Your task to perform on an android device: visit the assistant section in the google photos Image 0: 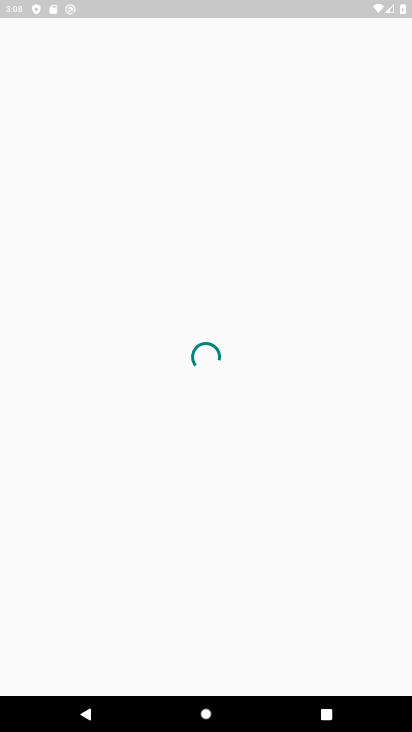
Step 0: press home button
Your task to perform on an android device: visit the assistant section in the google photos Image 1: 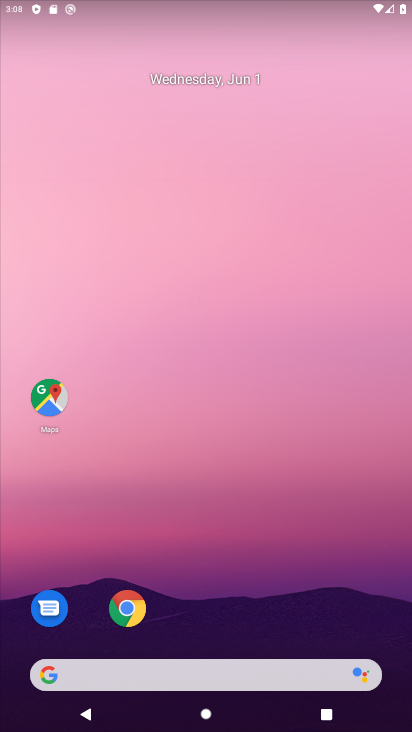
Step 1: drag from (206, 669) to (189, 158)
Your task to perform on an android device: visit the assistant section in the google photos Image 2: 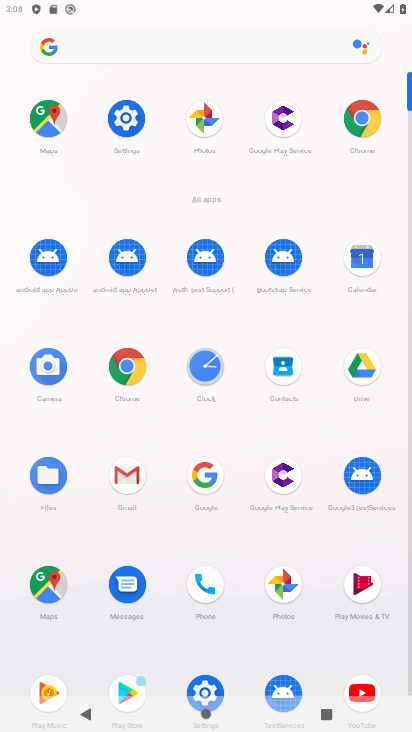
Step 2: click (274, 581)
Your task to perform on an android device: visit the assistant section in the google photos Image 3: 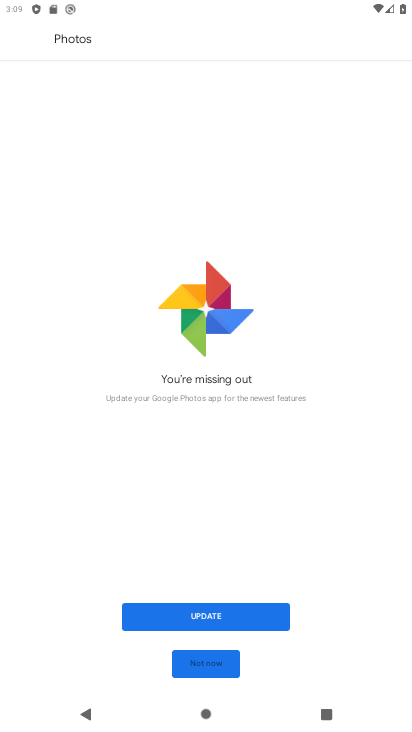
Step 3: click (189, 676)
Your task to perform on an android device: visit the assistant section in the google photos Image 4: 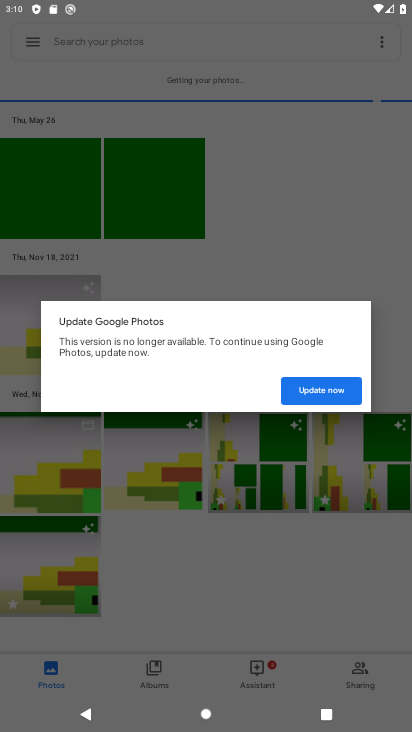
Step 4: click (334, 398)
Your task to perform on an android device: visit the assistant section in the google photos Image 5: 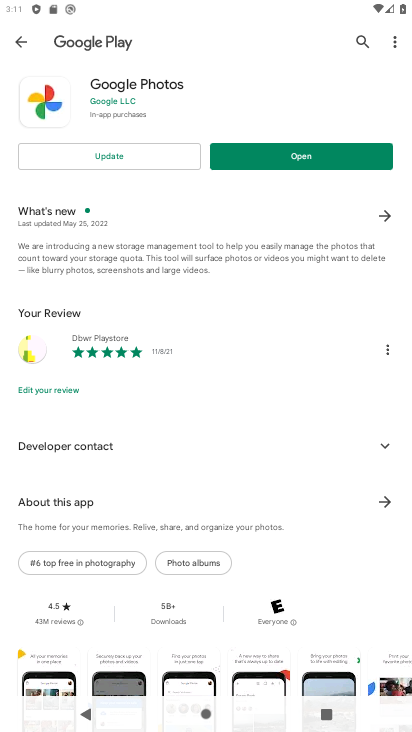
Step 5: click (139, 148)
Your task to perform on an android device: visit the assistant section in the google photos Image 6: 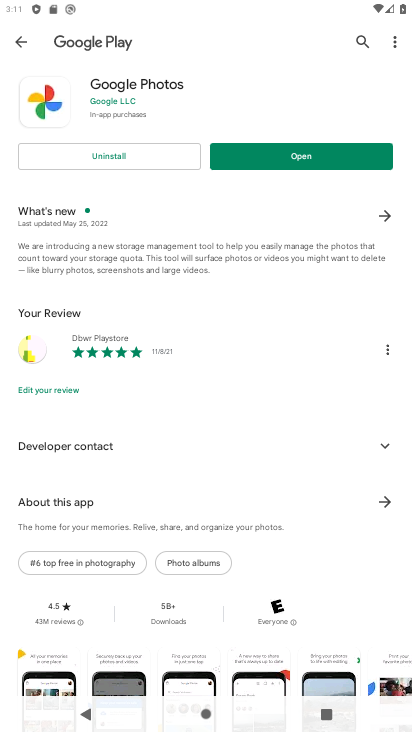
Step 6: click (289, 164)
Your task to perform on an android device: visit the assistant section in the google photos Image 7: 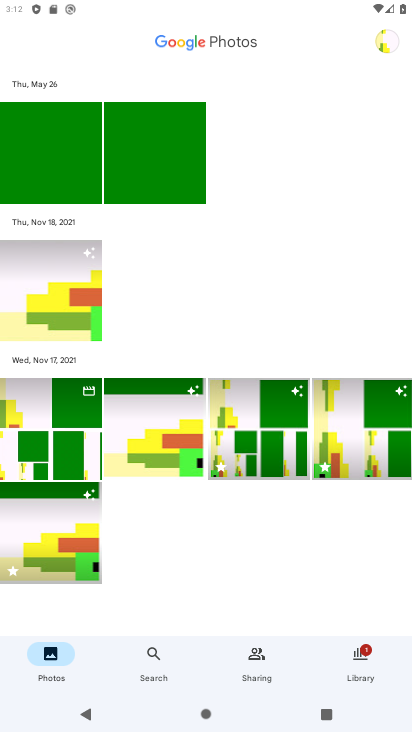
Step 7: task complete